Your task to perform on an android device: allow cookies in the chrome app Image 0: 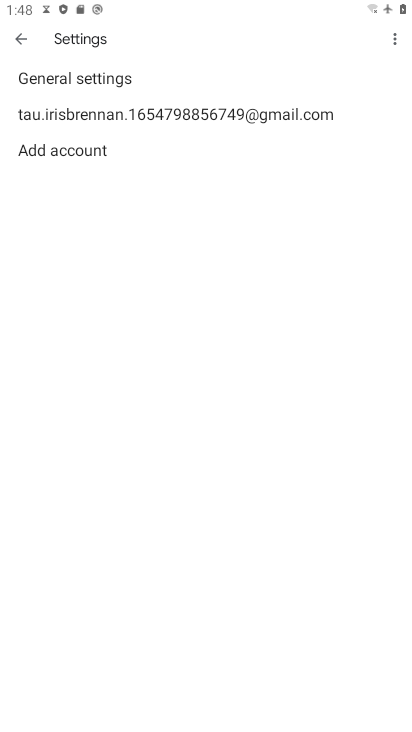
Step 0: drag from (255, 653) to (181, 210)
Your task to perform on an android device: allow cookies in the chrome app Image 1: 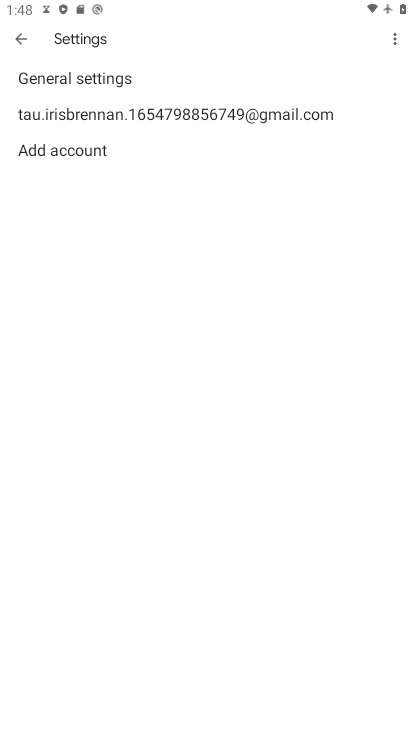
Step 1: click (29, 33)
Your task to perform on an android device: allow cookies in the chrome app Image 2: 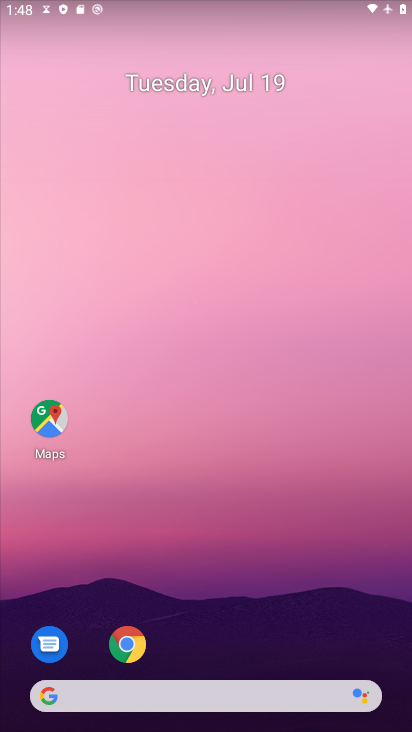
Step 2: drag from (212, 723) to (171, 314)
Your task to perform on an android device: allow cookies in the chrome app Image 3: 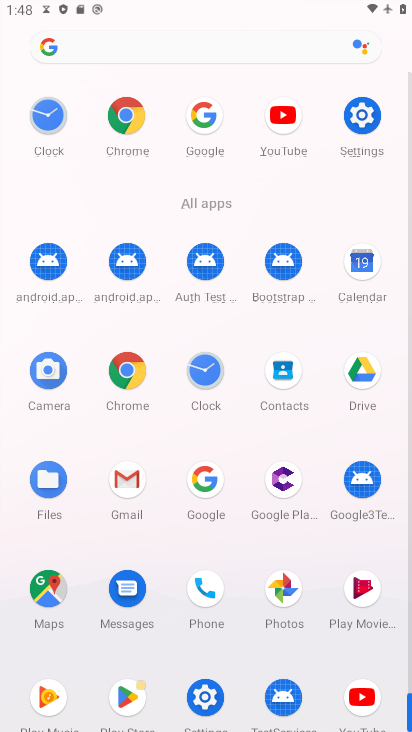
Step 3: click (124, 95)
Your task to perform on an android device: allow cookies in the chrome app Image 4: 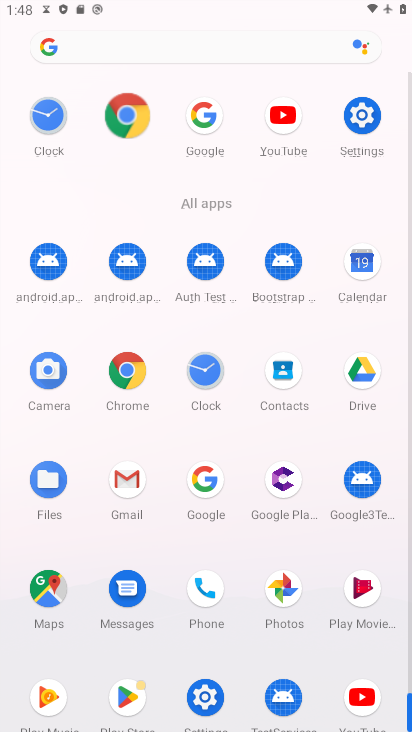
Step 4: click (121, 96)
Your task to perform on an android device: allow cookies in the chrome app Image 5: 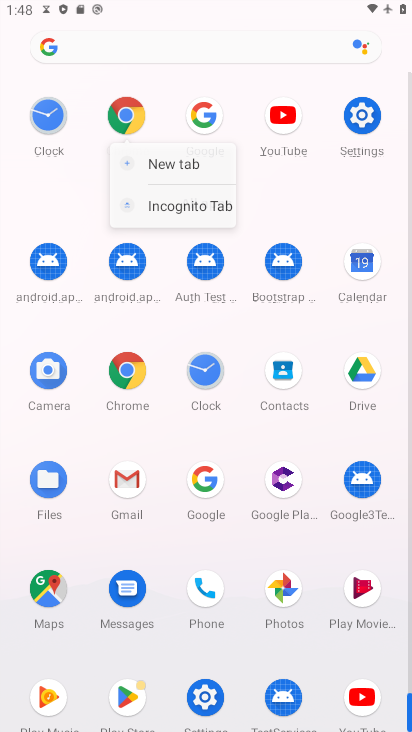
Step 5: click (122, 97)
Your task to perform on an android device: allow cookies in the chrome app Image 6: 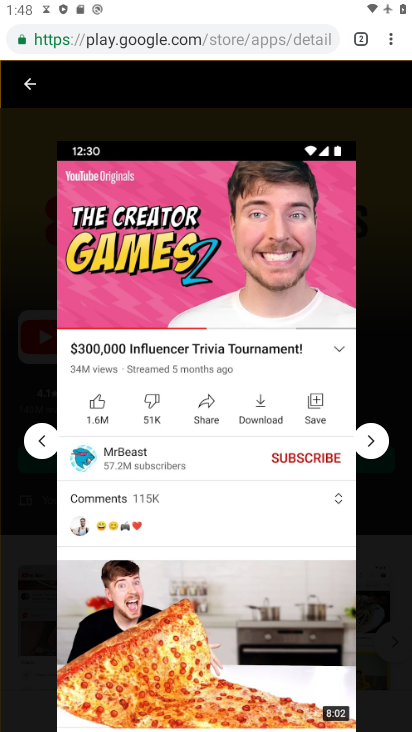
Step 6: drag from (388, 42) to (253, 458)
Your task to perform on an android device: allow cookies in the chrome app Image 7: 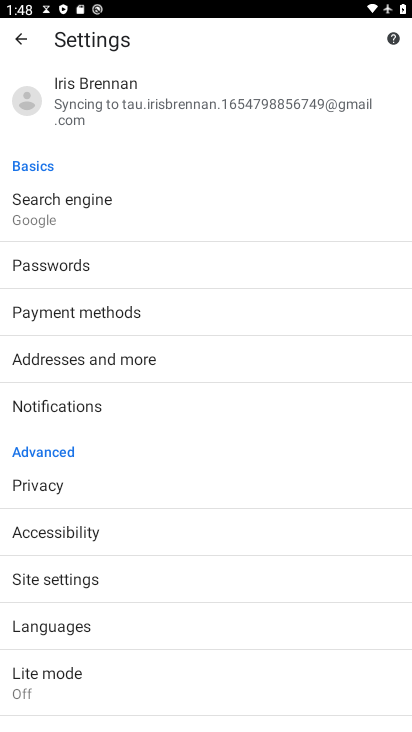
Step 7: drag from (99, 640) to (35, 356)
Your task to perform on an android device: allow cookies in the chrome app Image 8: 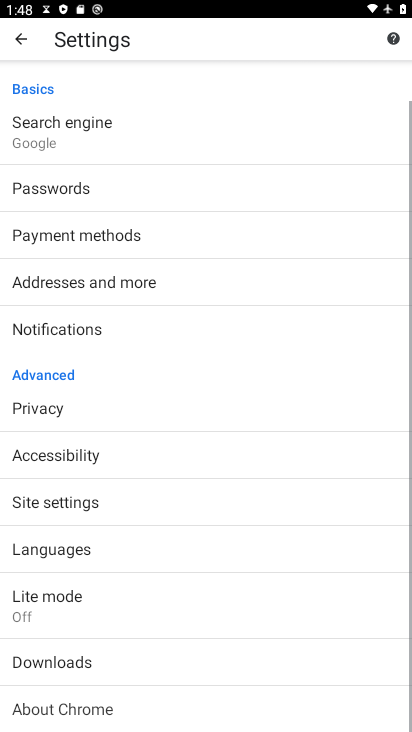
Step 8: drag from (105, 626) to (128, 300)
Your task to perform on an android device: allow cookies in the chrome app Image 9: 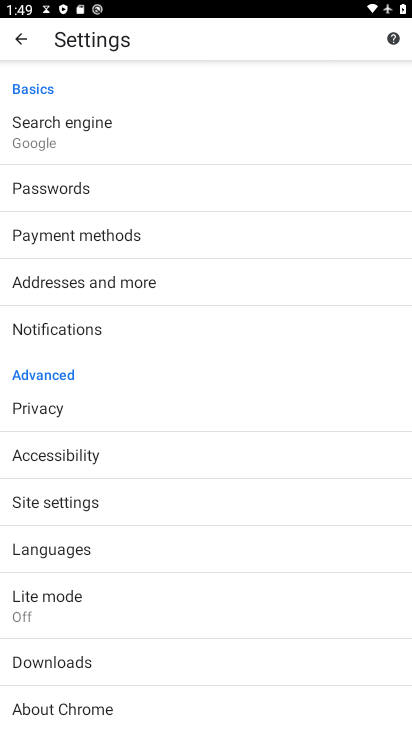
Step 9: click (42, 481)
Your task to perform on an android device: allow cookies in the chrome app Image 10: 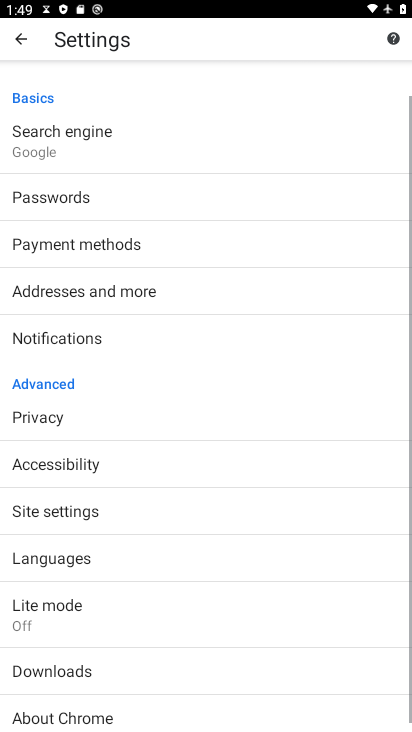
Step 10: click (42, 497)
Your task to perform on an android device: allow cookies in the chrome app Image 11: 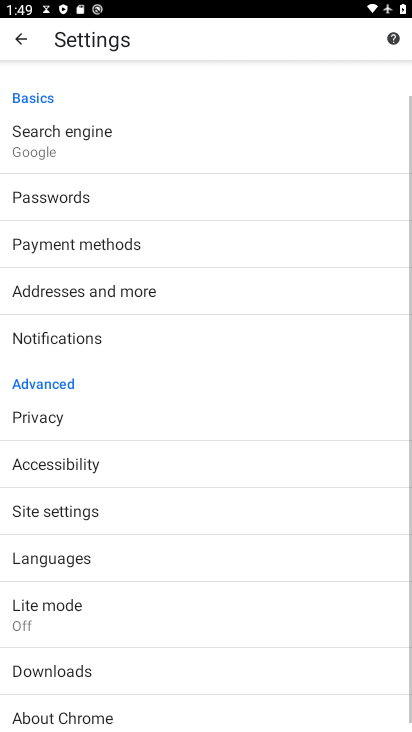
Step 11: click (43, 499)
Your task to perform on an android device: allow cookies in the chrome app Image 12: 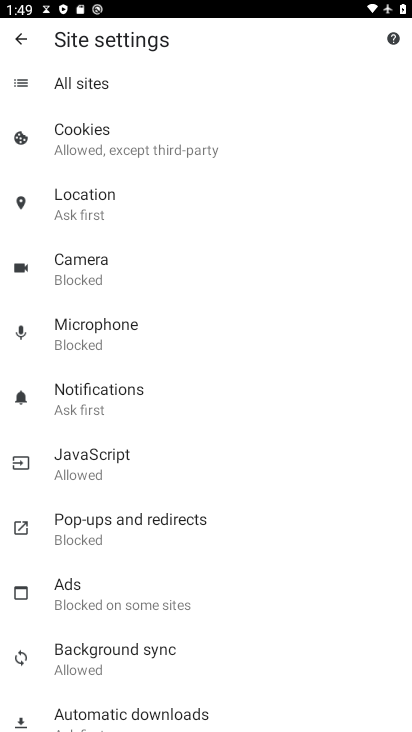
Step 12: click (67, 144)
Your task to perform on an android device: allow cookies in the chrome app Image 13: 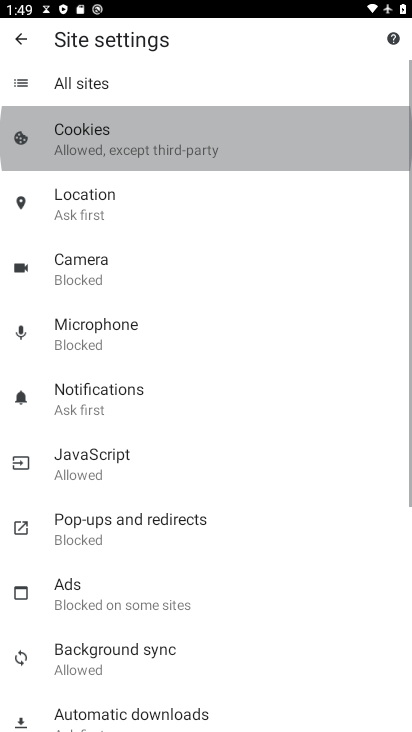
Step 13: click (75, 135)
Your task to perform on an android device: allow cookies in the chrome app Image 14: 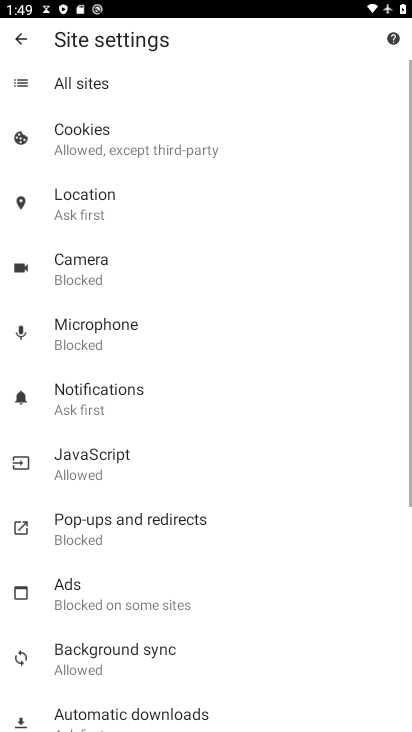
Step 14: click (76, 135)
Your task to perform on an android device: allow cookies in the chrome app Image 15: 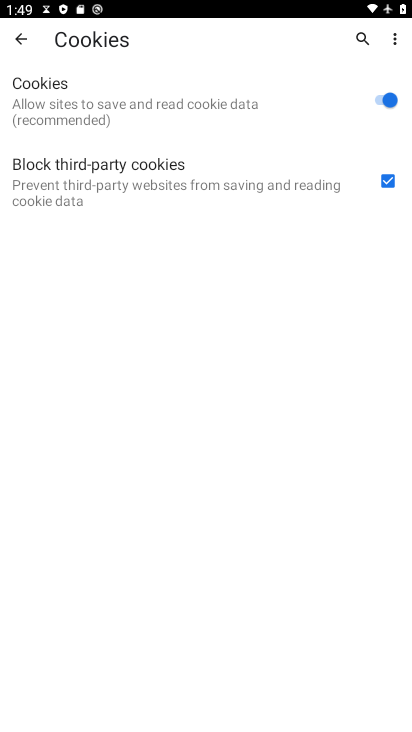
Step 15: task complete